Your task to perform on an android device: change alarm snooze length Image 0: 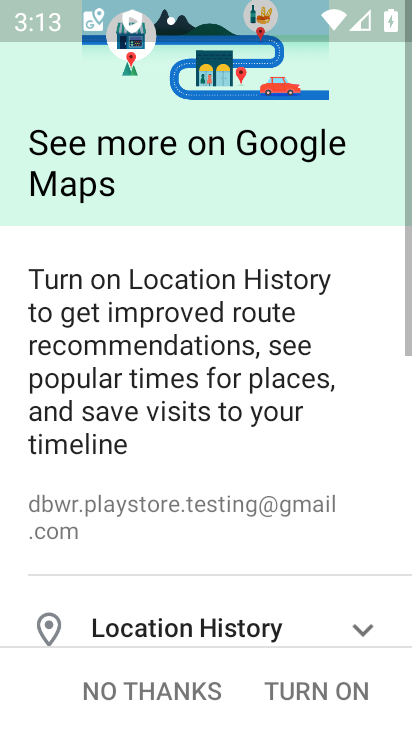
Step 0: press home button
Your task to perform on an android device: change alarm snooze length Image 1: 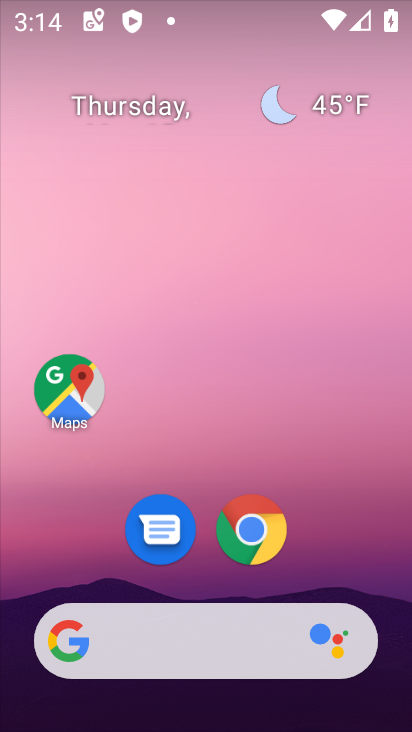
Step 1: drag from (362, 585) to (267, 19)
Your task to perform on an android device: change alarm snooze length Image 2: 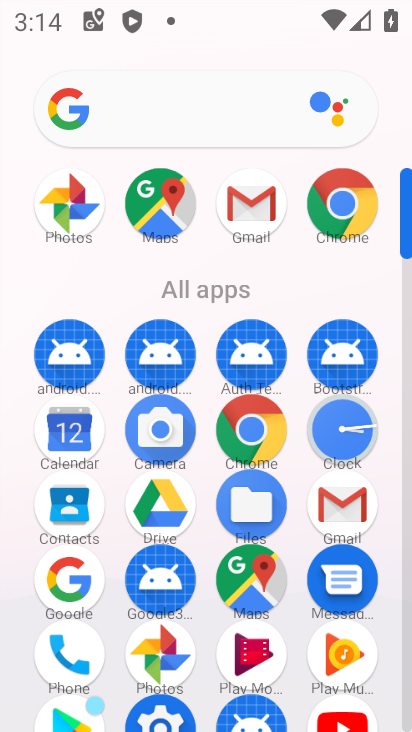
Step 2: click (367, 429)
Your task to perform on an android device: change alarm snooze length Image 3: 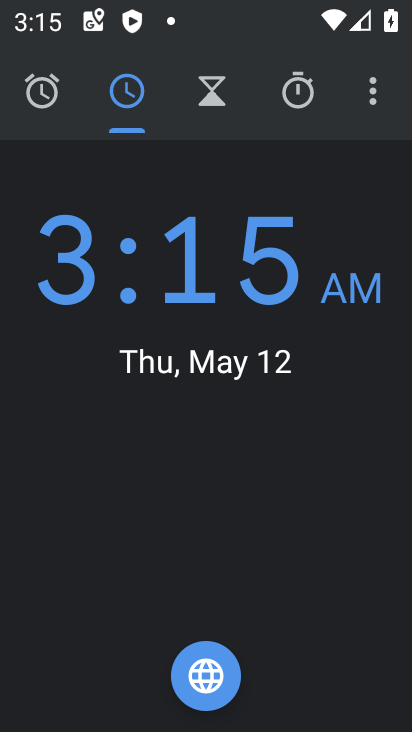
Step 3: click (378, 86)
Your task to perform on an android device: change alarm snooze length Image 4: 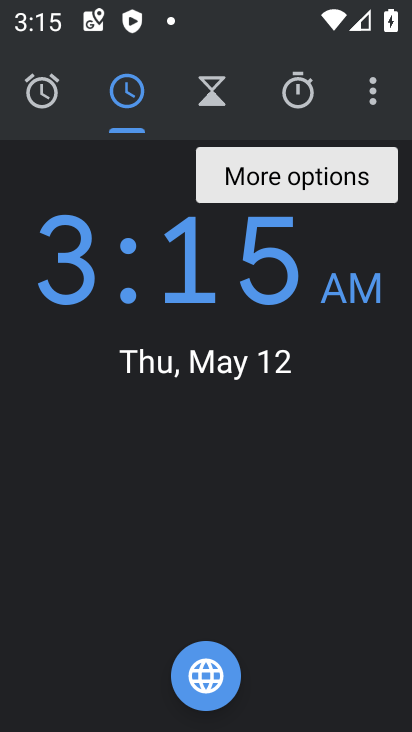
Step 4: click (378, 85)
Your task to perform on an android device: change alarm snooze length Image 5: 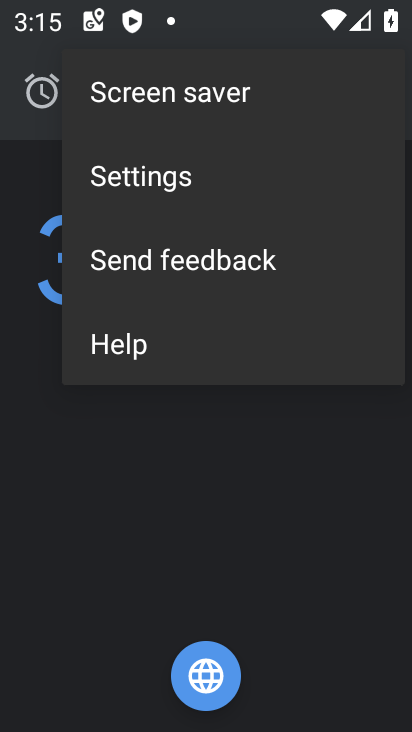
Step 5: click (125, 191)
Your task to perform on an android device: change alarm snooze length Image 6: 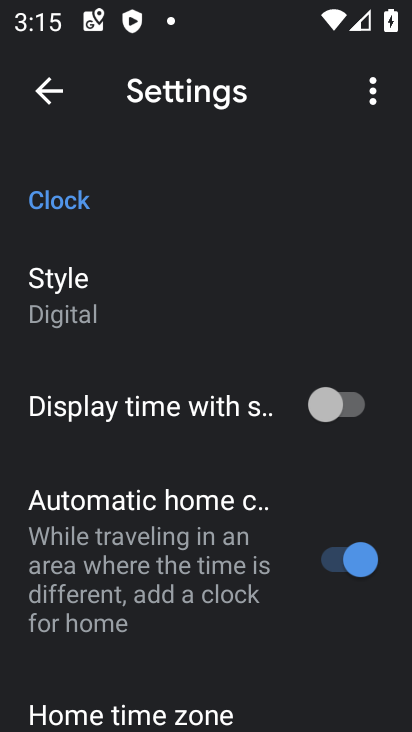
Step 6: drag from (64, 645) to (132, 251)
Your task to perform on an android device: change alarm snooze length Image 7: 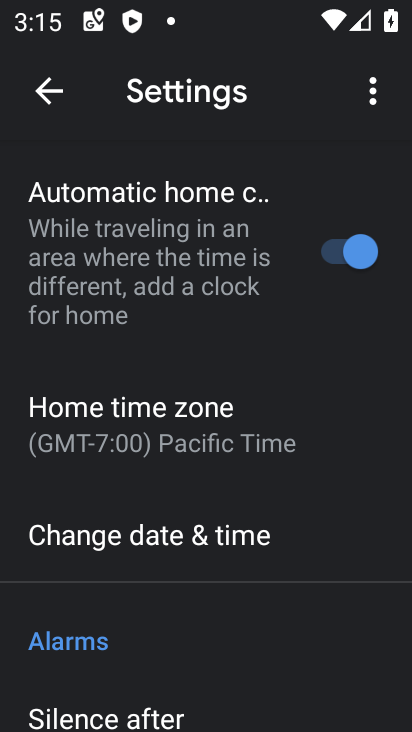
Step 7: drag from (197, 588) to (222, 265)
Your task to perform on an android device: change alarm snooze length Image 8: 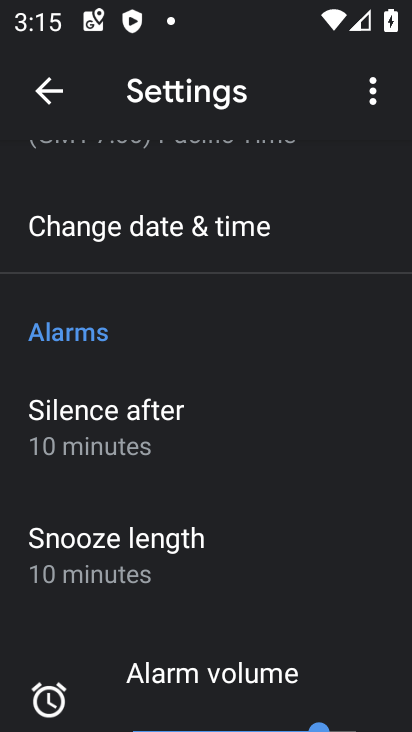
Step 8: click (177, 571)
Your task to perform on an android device: change alarm snooze length Image 9: 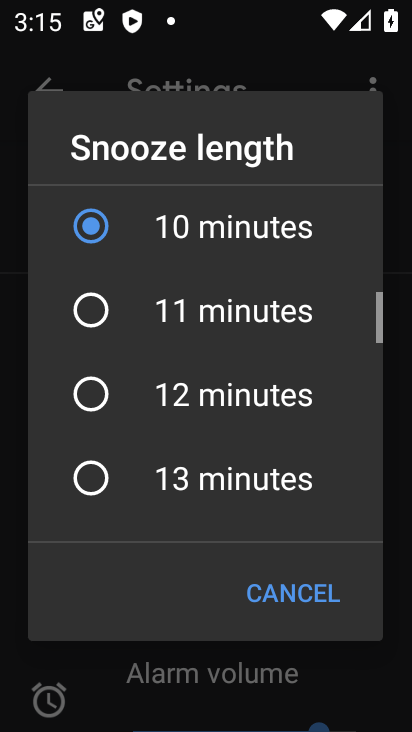
Step 9: click (108, 406)
Your task to perform on an android device: change alarm snooze length Image 10: 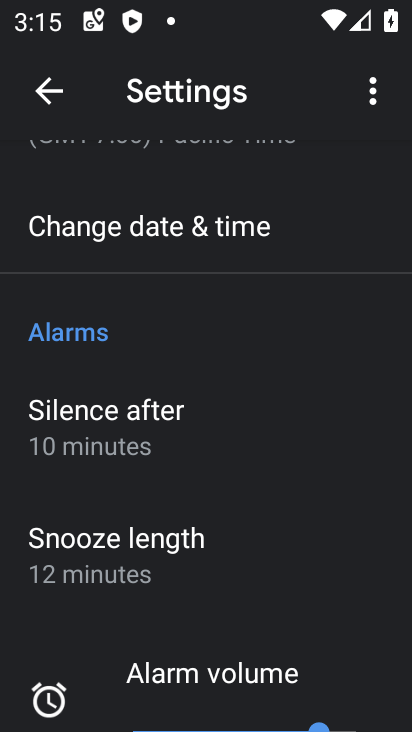
Step 10: task complete